Your task to perform on an android device: Search for pizza restaurants on Maps Image 0: 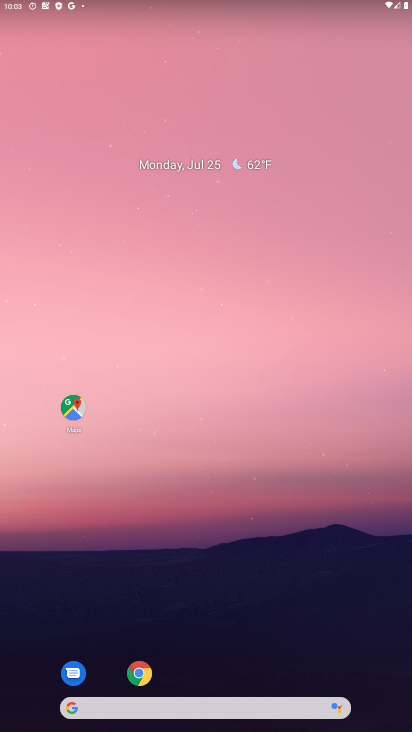
Step 0: drag from (172, 670) to (227, 185)
Your task to perform on an android device: Search for pizza restaurants on Maps Image 1: 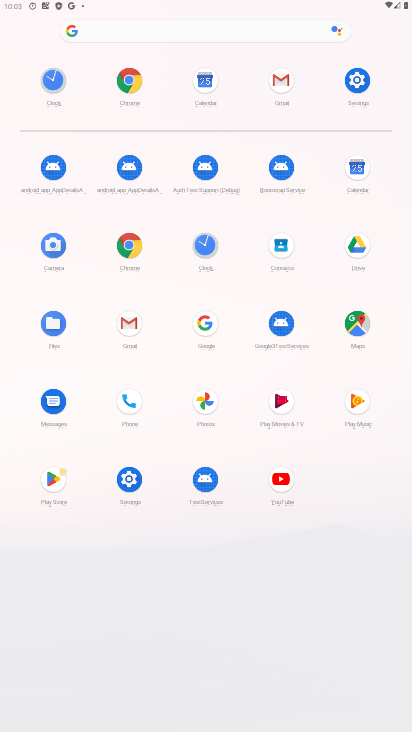
Step 1: click (352, 321)
Your task to perform on an android device: Search for pizza restaurants on Maps Image 2: 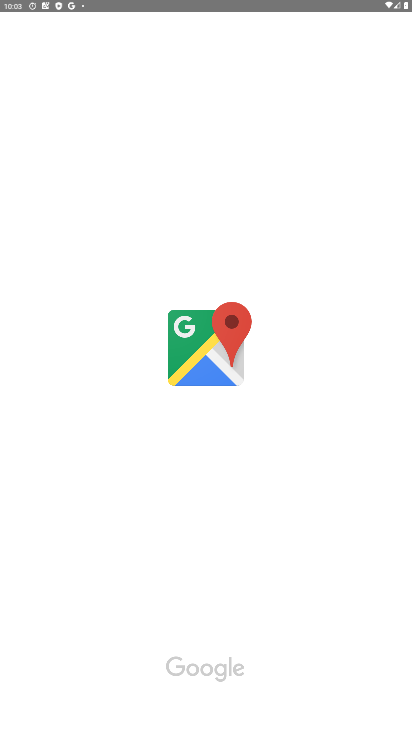
Step 2: drag from (281, 584) to (311, 288)
Your task to perform on an android device: Search for pizza restaurants on Maps Image 3: 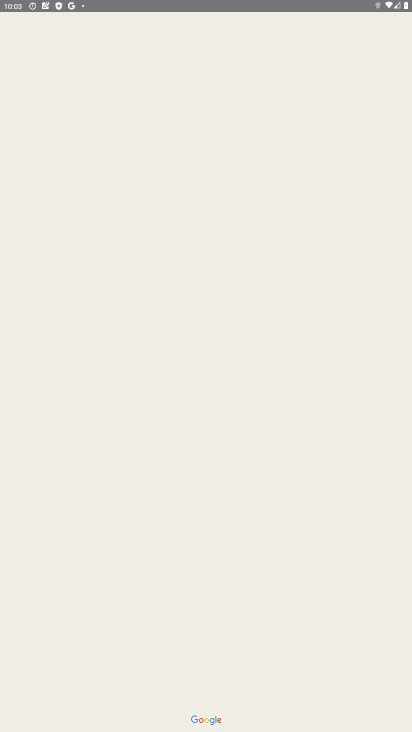
Step 3: drag from (237, 533) to (252, 244)
Your task to perform on an android device: Search for pizza restaurants on Maps Image 4: 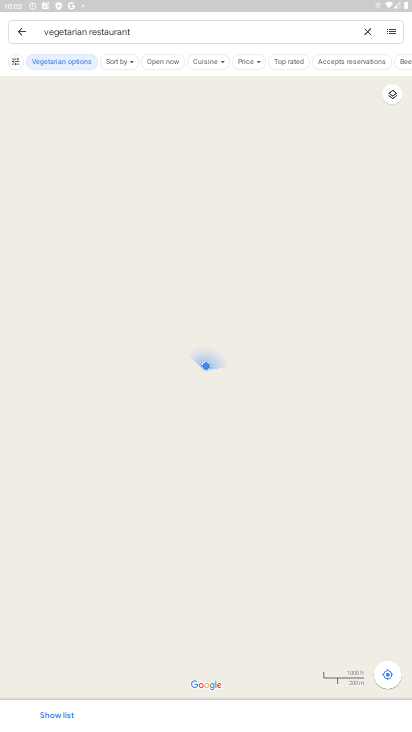
Step 4: click (369, 25)
Your task to perform on an android device: Search for pizza restaurants on Maps Image 5: 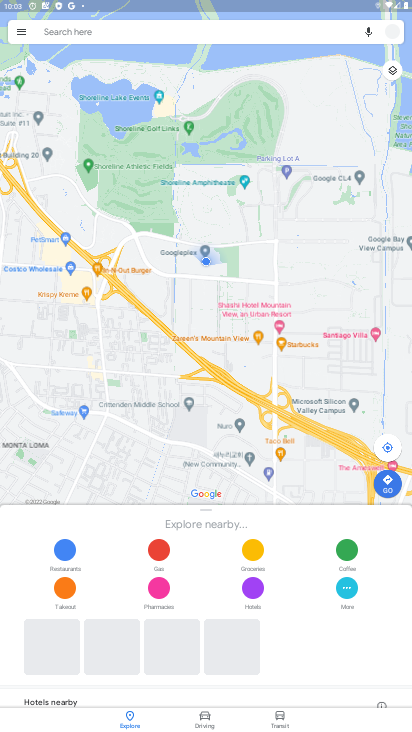
Step 5: click (68, 29)
Your task to perform on an android device: Search for pizza restaurants on Maps Image 6: 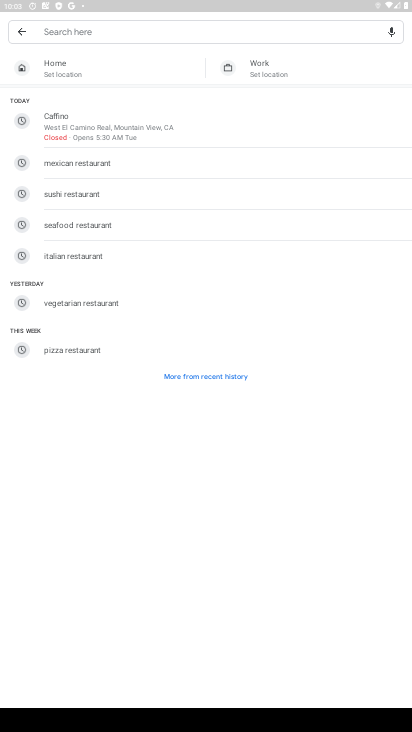
Step 6: click (65, 347)
Your task to perform on an android device: Search for pizza restaurants on Maps Image 7: 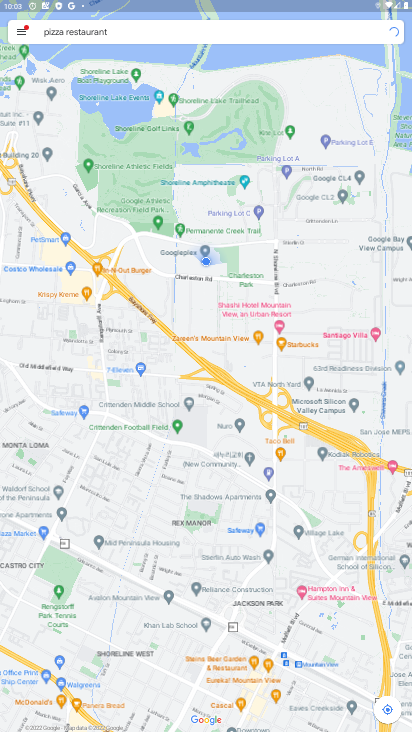
Step 7: task complete